Your task to perform on an android device: check android version Image 0: 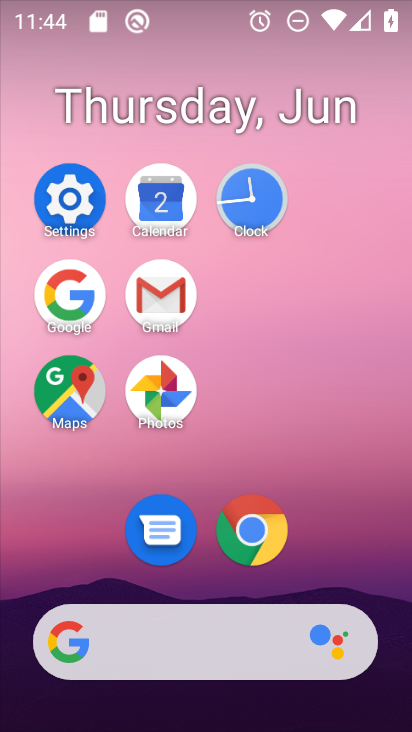
Step 0: click (81, 210)
Your task to perform on an android device: check android version Image 1: 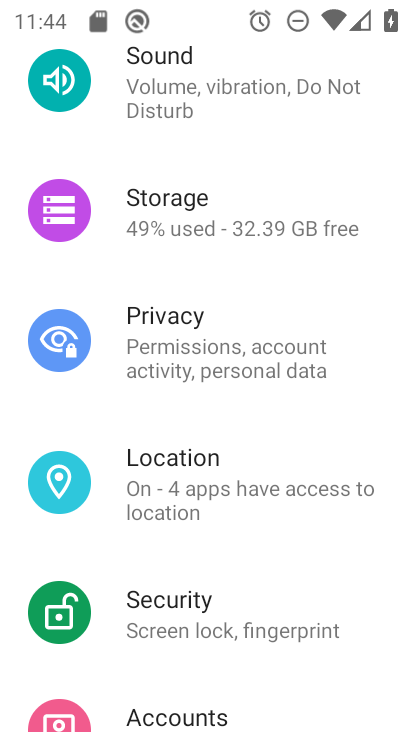
Step 1: drag from (290, 635) to (236, 214)
Your task to perform on an android device: check android version Image 2: 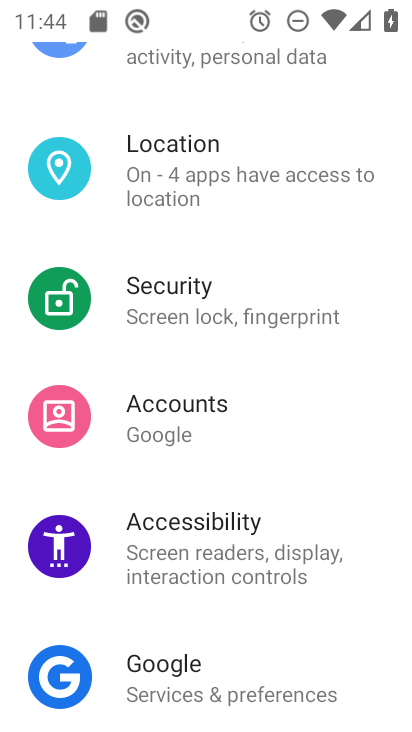
Step 2: drag from (219, 643) to (233, 197)
Your task to perform on an android device: check android version Image 3: 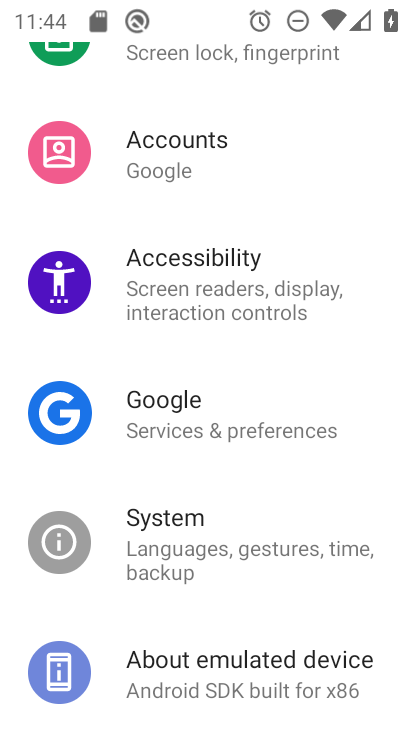
Step 3: drag from (244, 643) to (254, 307)
Your task to perform on an android device: check android version Image 4: 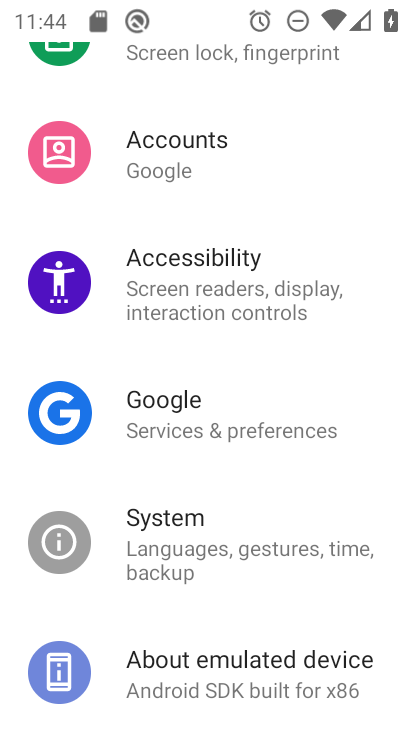
Step 4: click (335, 658)
Your task to perform on an android device: check android version Image 5: 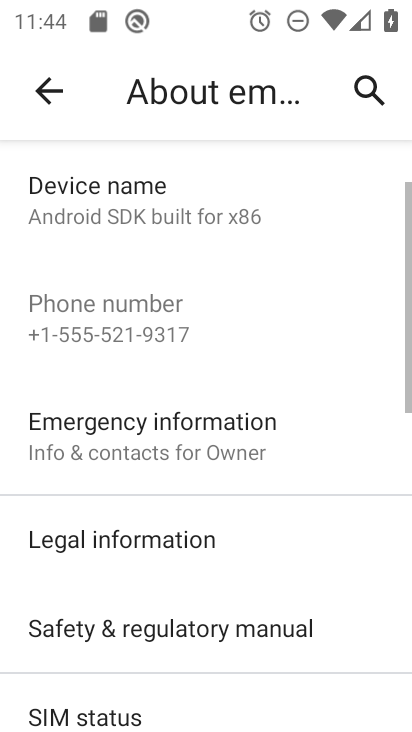
Step 5: drag from (241, 604) to (264, 252)
Your task to perform on an android device: check android version Image 6: 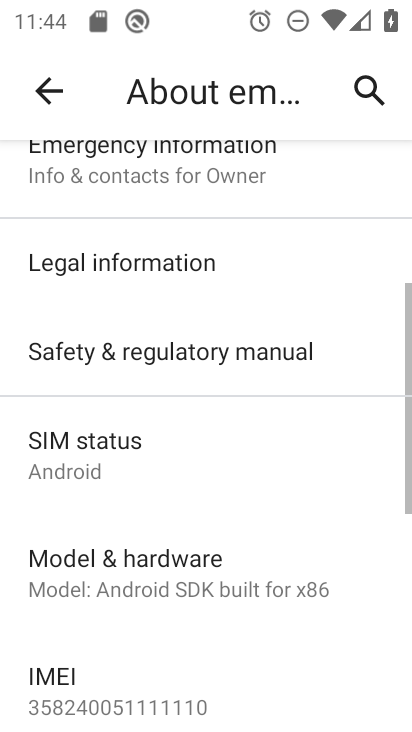
Step 6: drag from (192, 645) to (244, 302)
Your task to perform on an android device: check android version Image 7: 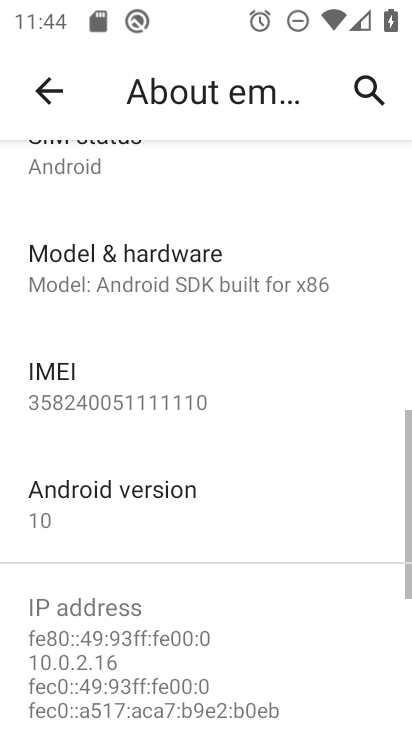
Step 7: click (165, 517)
Your task to perform on an android device: check android version Image 8: 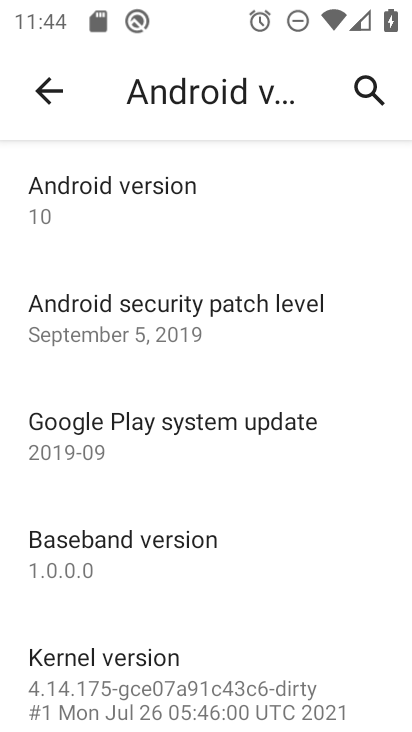
Step 8: task complete